Your task to perform on an android device: What's the news in Trinidad and Tobago? Image 0: 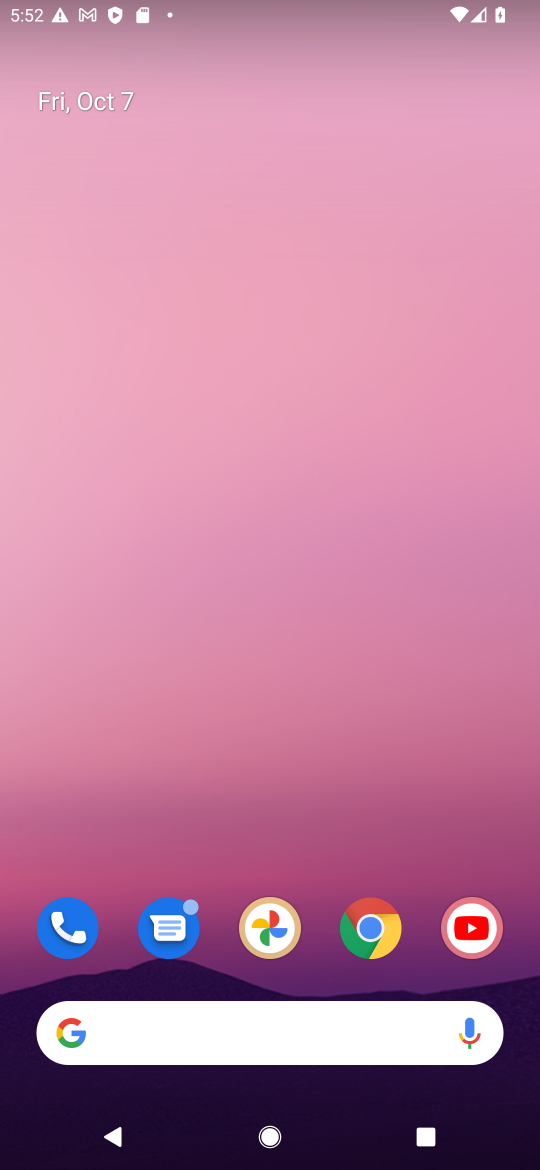
Step 0: drag from (358, 1005) to (396, 510)
Your task to perform on an android device: What's the news in Trinidad and Tobago? Image 1: 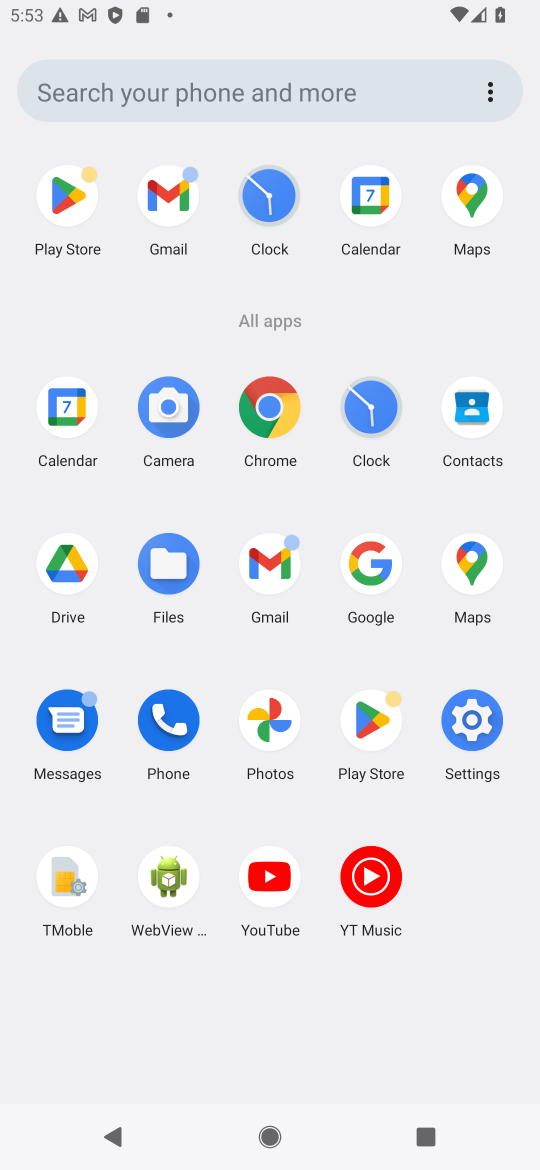
Step 1: click (386, 580)
Your task to perform on an android device: What's the news in Trinidad and Tobago? Image 2: 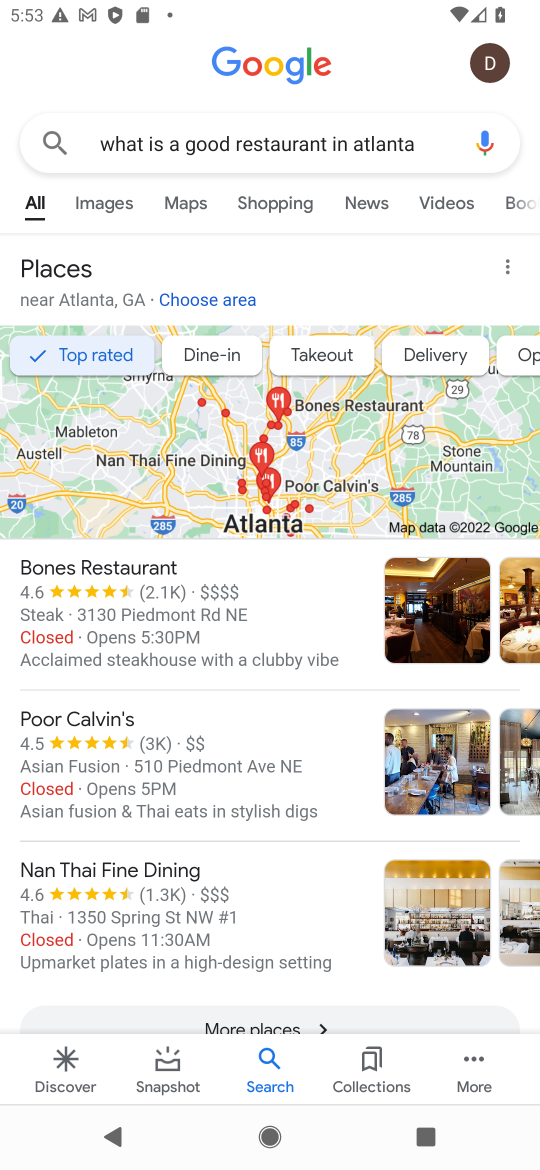
Step 2: click (423, 150)
Your task to perform on an android device: What's the news in Trinidad and Tobago? Image 3: 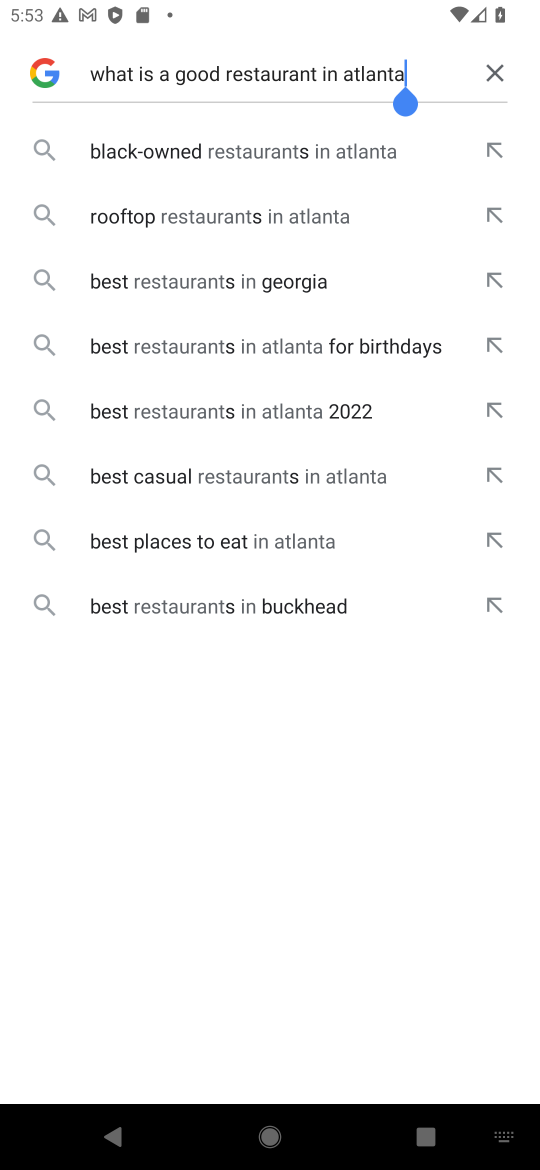
Step 3: click (494, 75)
Your task to perform on an android device: What's the news in Trinidad and Tobago? Image 4: 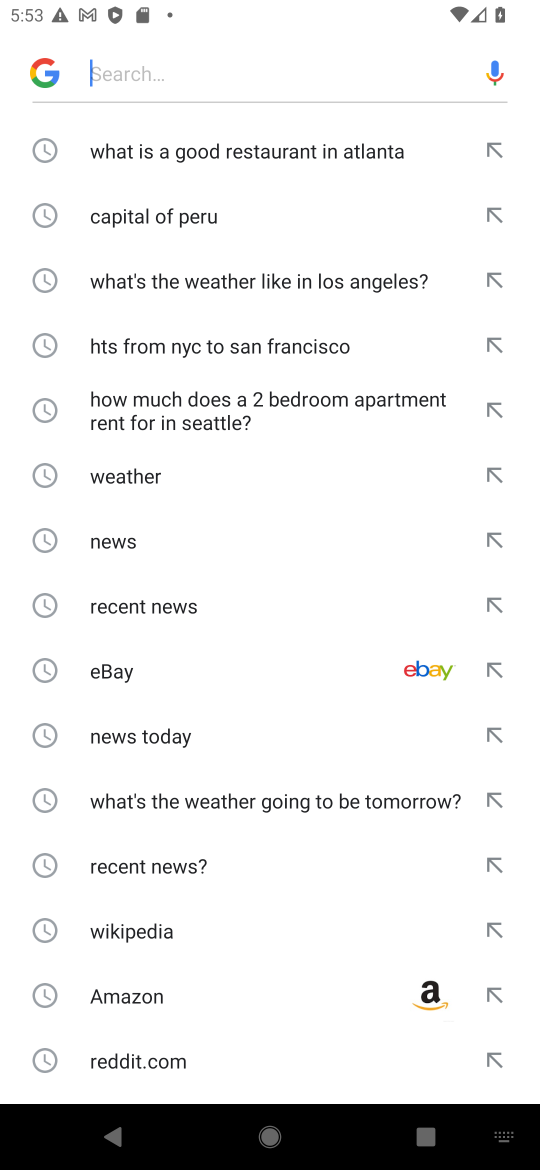
Step 4: type "What's the news in Trinidad and Tobago?"
Your task to perform on an android device: What's the news in Trinidad and Tobago? Image 5: 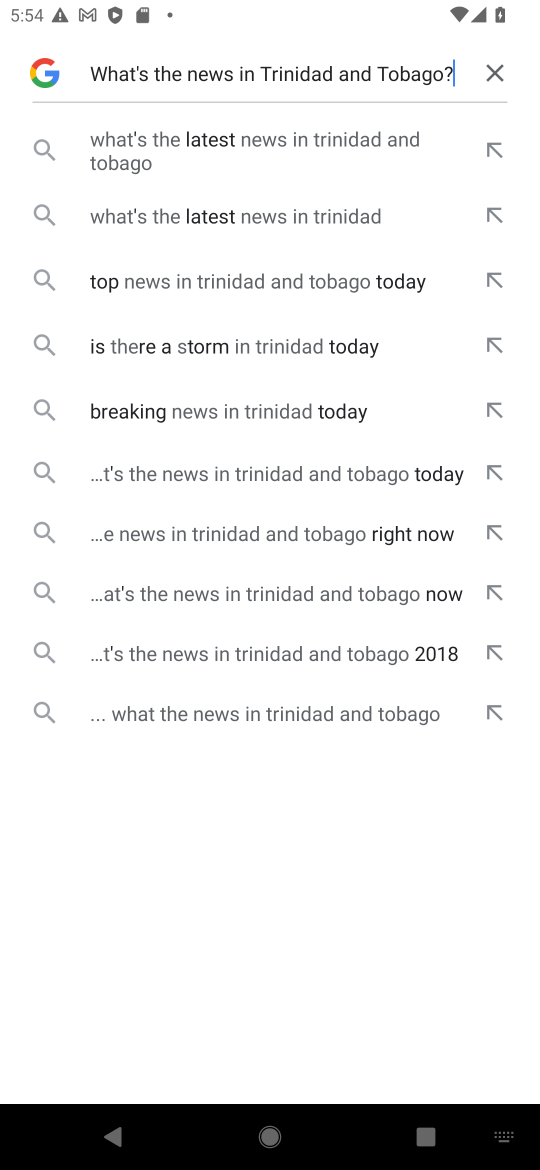
Step 5: click (242, 138)
Your task to perform on an android device: What's the news in Trinidad and Tobago? Image 6: 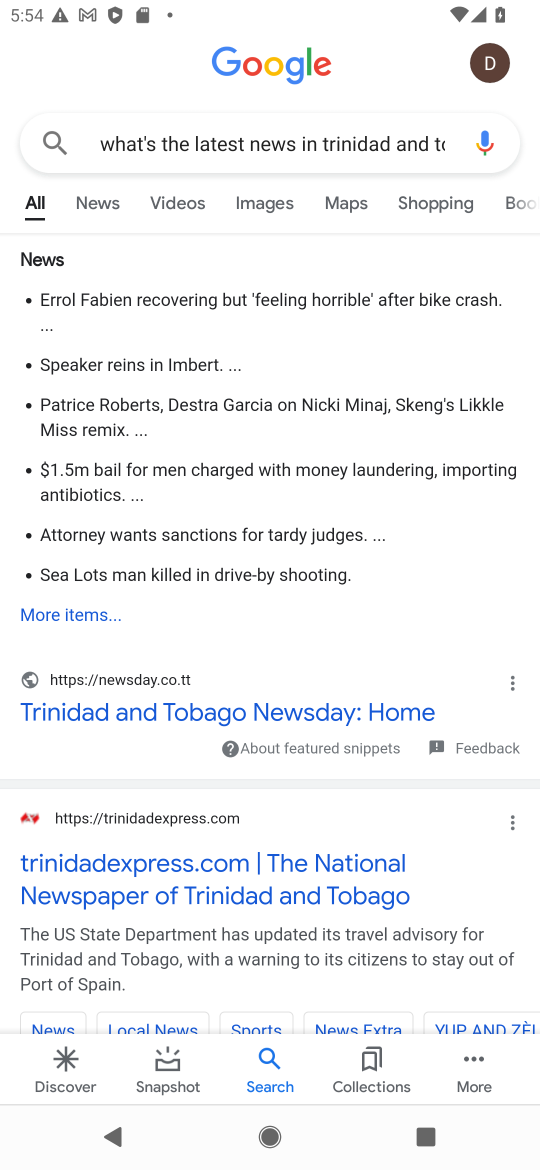
Step 6: task complete